Your task to perform on an android device: Set the phone to "Do not disturb". Image 0: 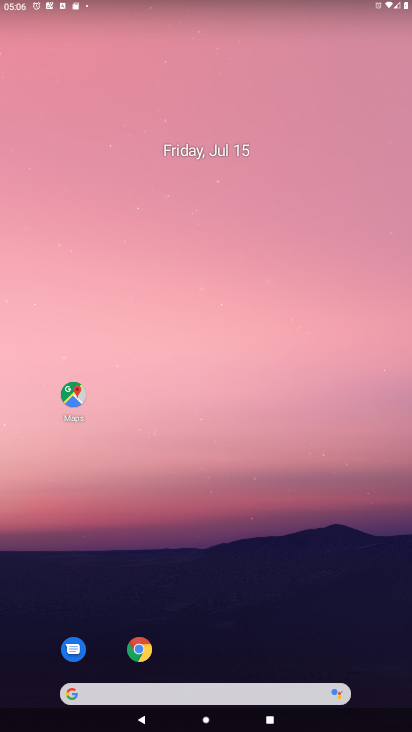
Step 0: drag from (384, 659) to (308, 72)
Your task to perform on an android device: Set the phone to "Do not disturb". Image 1: 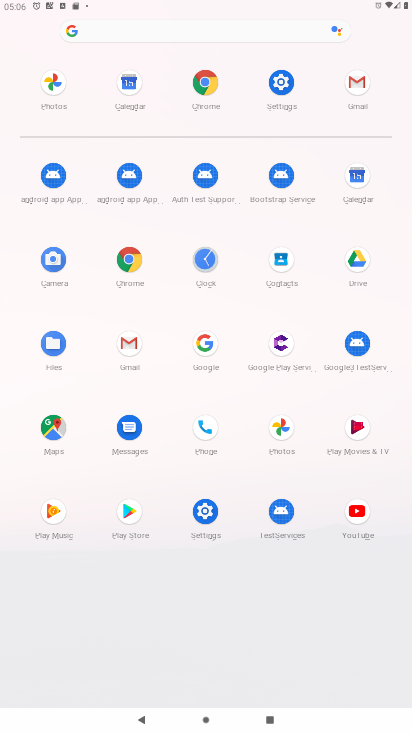
Step 1: click (204, 512)
Your task to perform on an android device: Set the phone to "Do not disturb". Image 2: 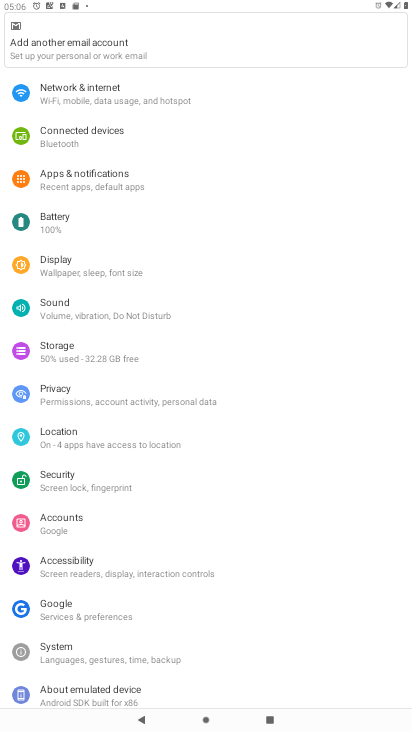
Step 2: click (65, 303)
Your task to perform on an android device: Set the phone to "Do not disturb". Image 3: 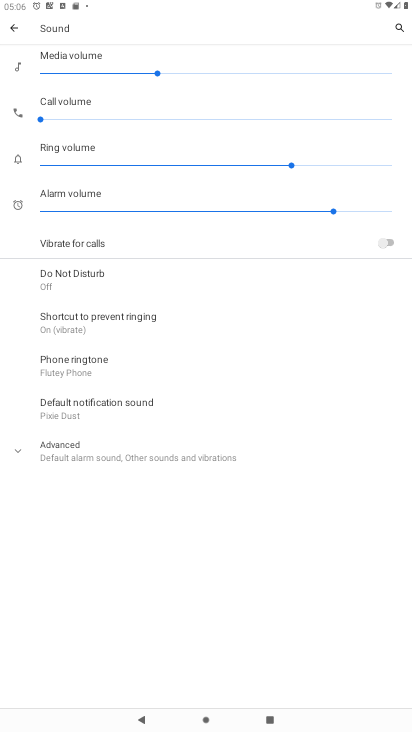
Step 3: click (53, 273)
Your task to perform on an android device: Set the phone to "Do not disturb". Image 4: 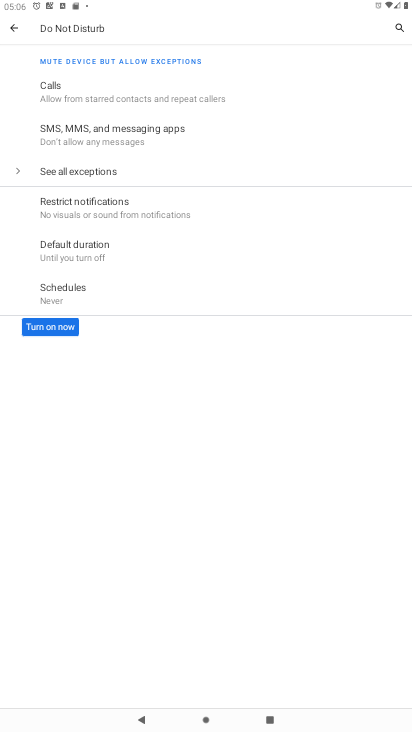
Step 4: click (40, 326)
Your task to perform on an android device: Set the phone to "Do not disturb". Image 5: 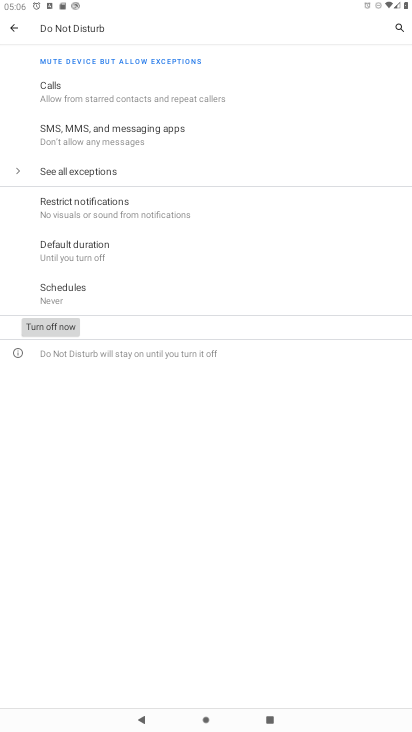
Step 5: task complete